Your task to perform on an android device: Open calendar and show me the fourth week of next month Image 0: 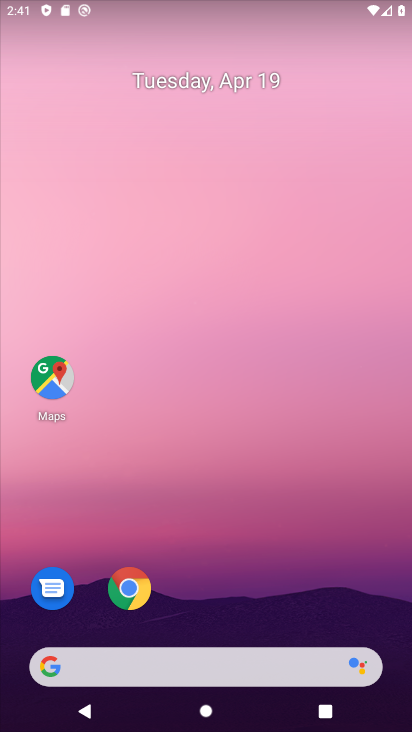
Step 0: drag from (269, 687) to (275, 281)
Your task to perform on an android device: Open calendar and show me the fourth week of next month Image 1: 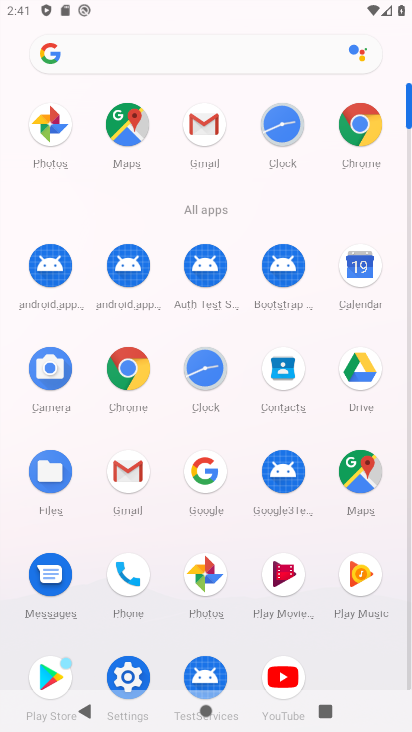
Step 1: click (332, 271)
Your task to perform on an android device: Open calendar and show me the fourth week of next month Image 2: 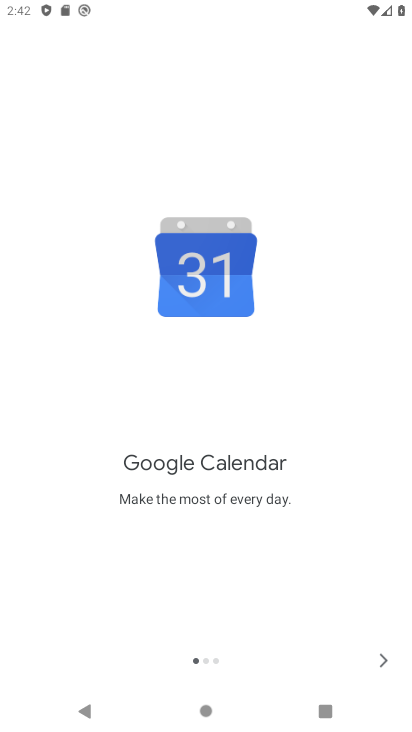
Step 2: click (376, 668)
Your task to perform on an android device: Open calendar and show me the fourth week of next month Image 3: 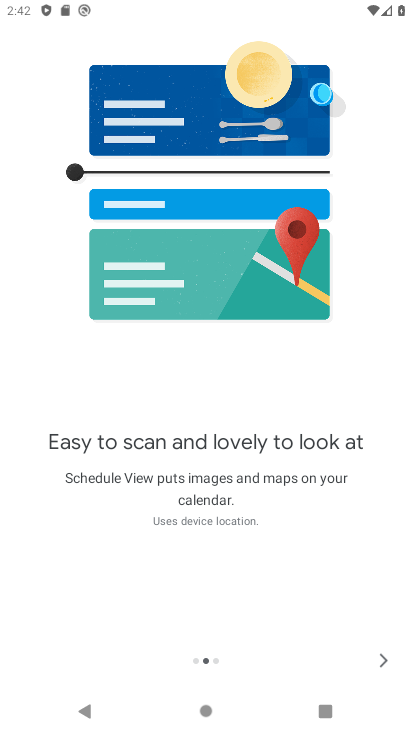
Step 3: click (377, 667)
Your task to perform on an android device: Open calendar and show me the fourth week of next month Image 4: 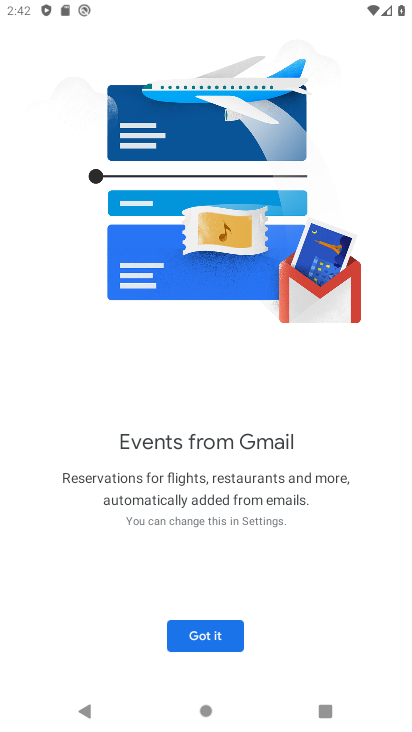
Step 4: click (177, 627)
Your task to perform on an android device: Open calendar and show me the fourth week of next month Image 5: 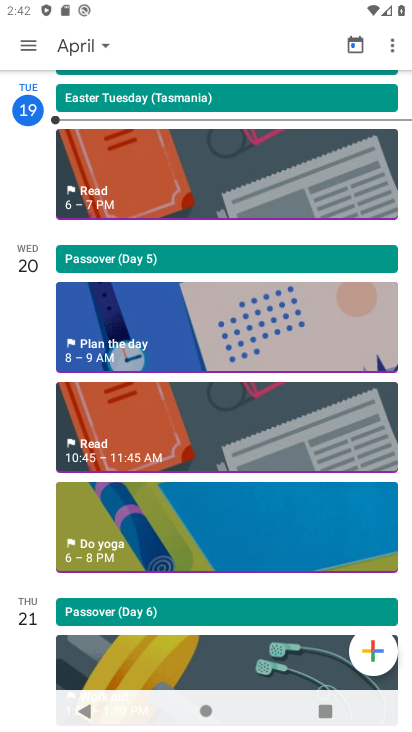
Step 5: task complete